Your task to perform on an android device: Open the phone app and click the voicemail tab. Image 0: 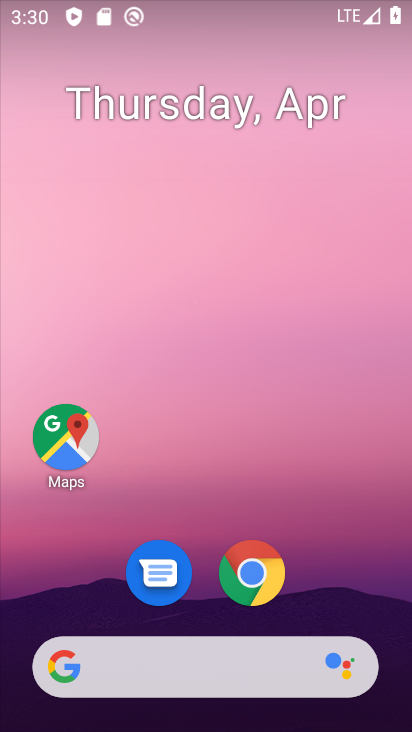
Step 0: drag from (353, 605) to (282, 7)
Your task to perform on an android device: Open the phone app and click the voicemail tab. Image 1: 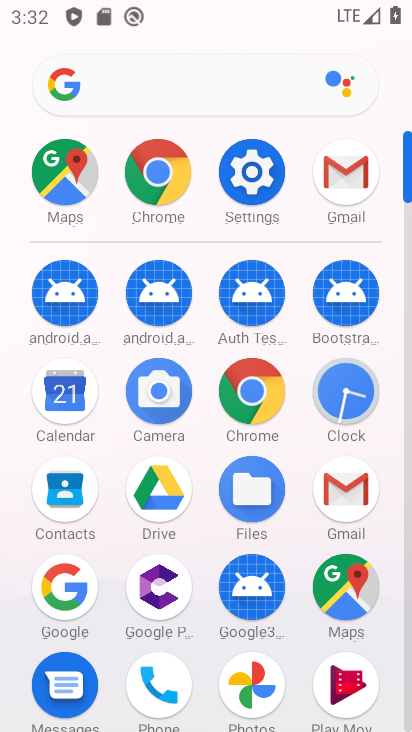
Step 1: click (148, 662)
Your task to perform on an android device: Open the phone app and click the voicemail tab. Image 2: 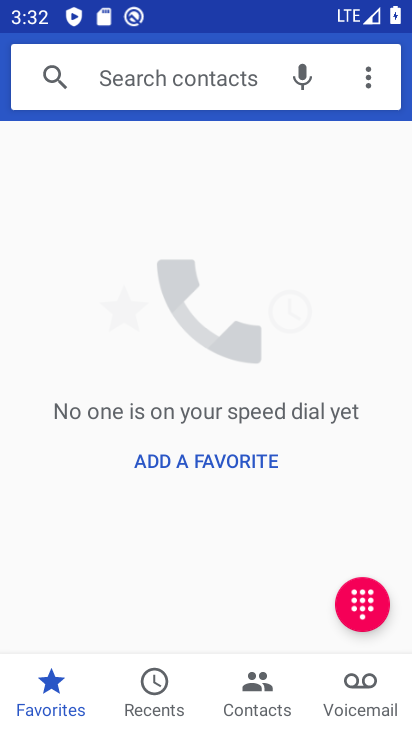
Step 2: click (342, 679)
Your task to perform on an android device: Open the phone app and click the voicemail tab. Image 3: 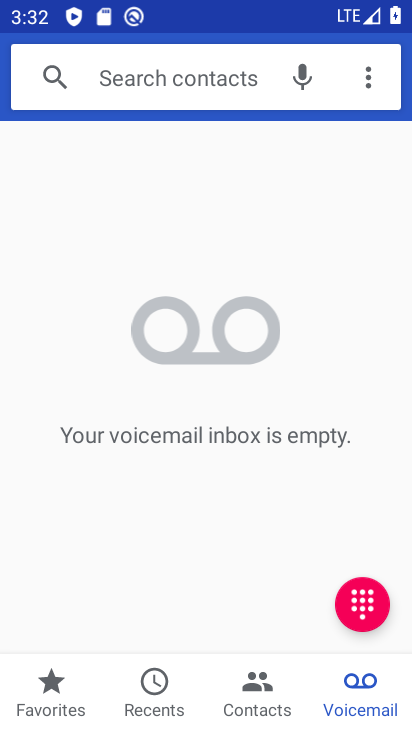
Step 3: task complete